Your task to perform on an android device: Open Google Chrome Image 0: 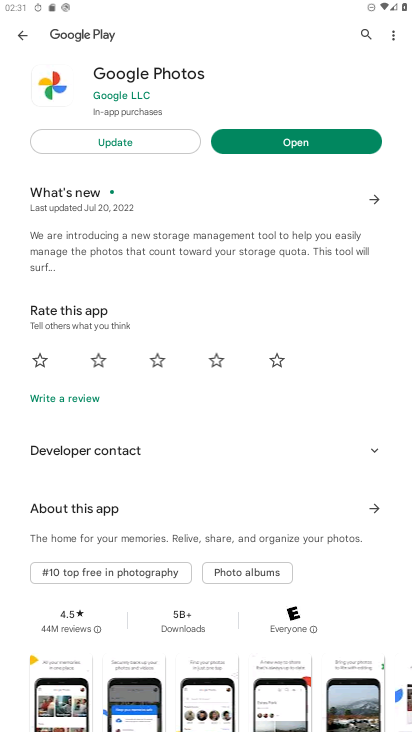
Step 0: press home button
Your task to perform on an android device: Open Google Chrome Image 1: 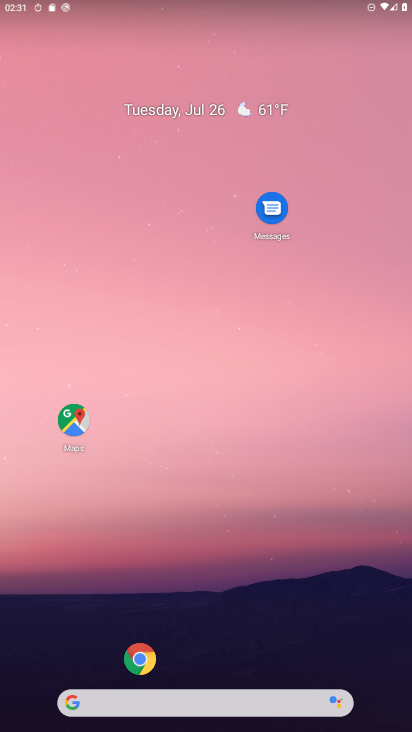
Step 1: click (116, 702)
Your task to perform on an android device: Open Google Chrome Image 2: 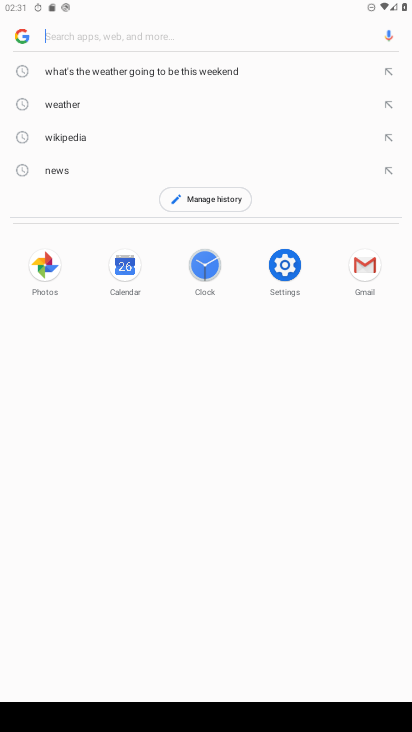
Step 2: press home button
Your task to perform on an android device: Open Google Chrome Image 3: 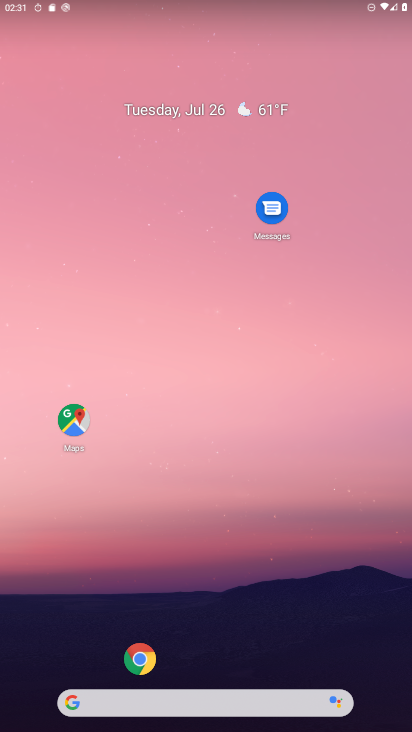
Step 3: click (140, 654)
Your task to perform on an android device: Open Google Chrome Image 4: 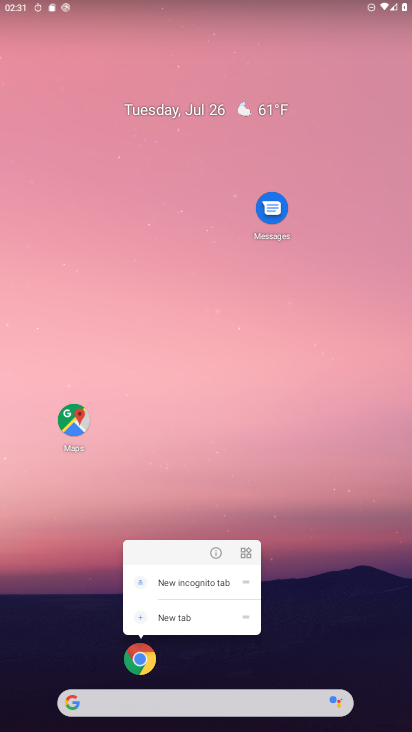
Step 4: click (138, 657)
Your task to perform on an android device: Open Google Chrome Image 5: 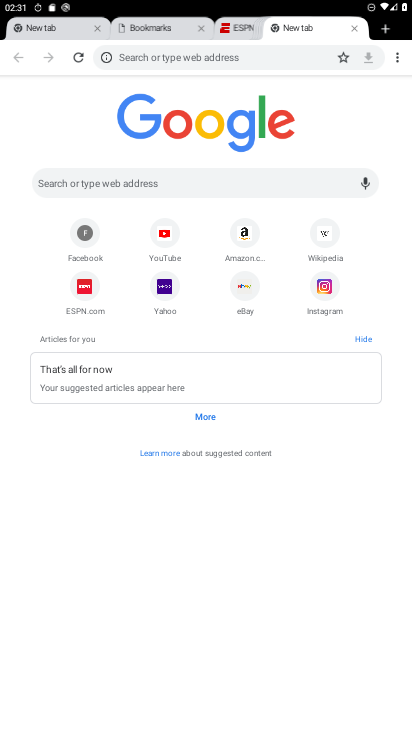
Step 5: task complete